Your task to perform on an android device: turn on improve location accuracy Image 0: 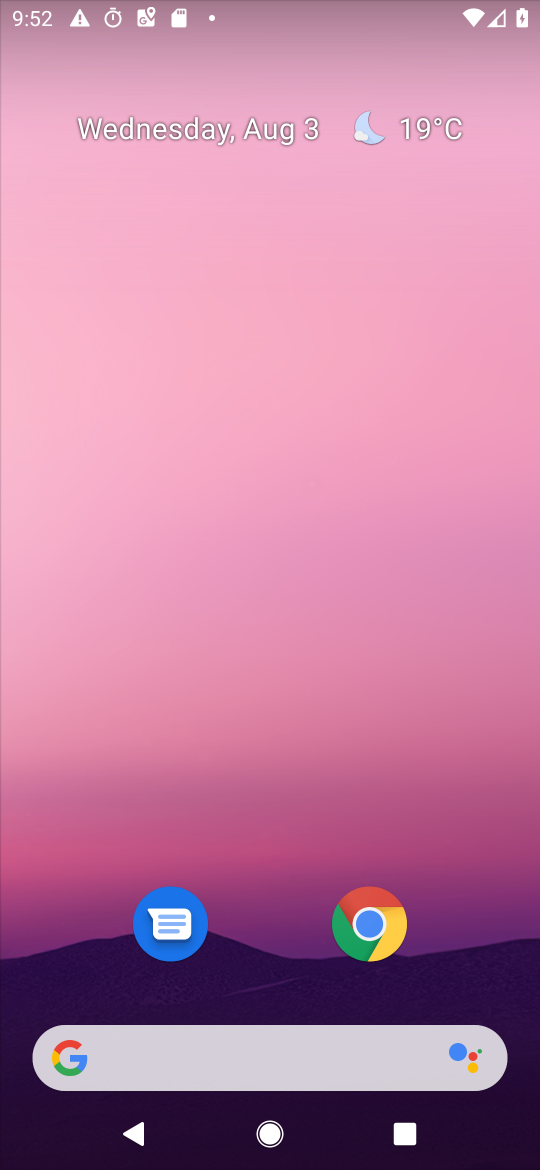
Step 0: drag from (284, 977) to (364, 82)
Your task to perform on an android device: turn on improve location accuracy Image 1: 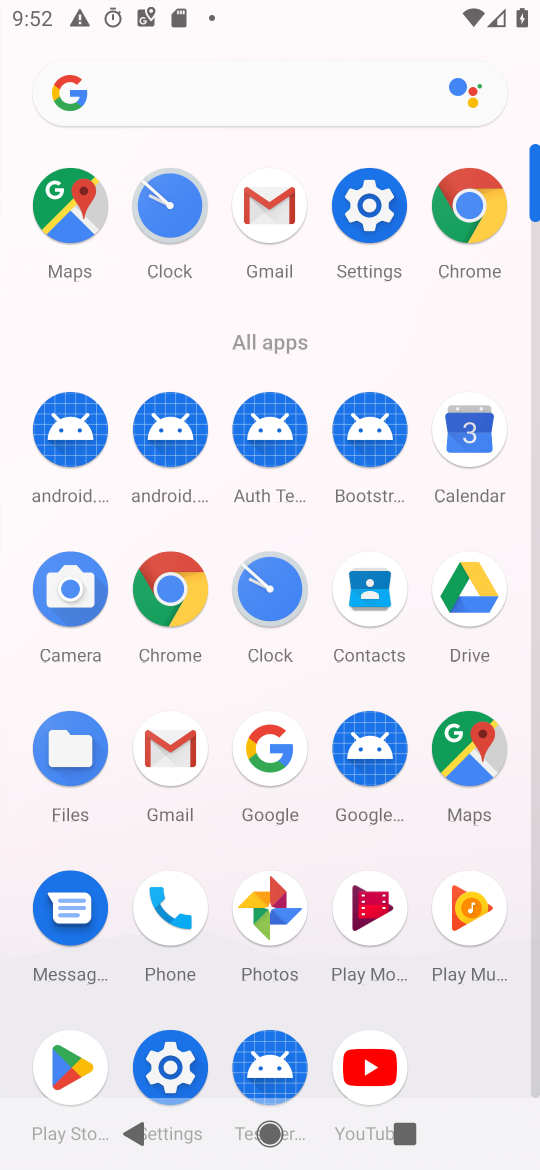
Step 1: click (363, 193)
Your task to perform on an android device: turn on improve location accuracy Image 2: 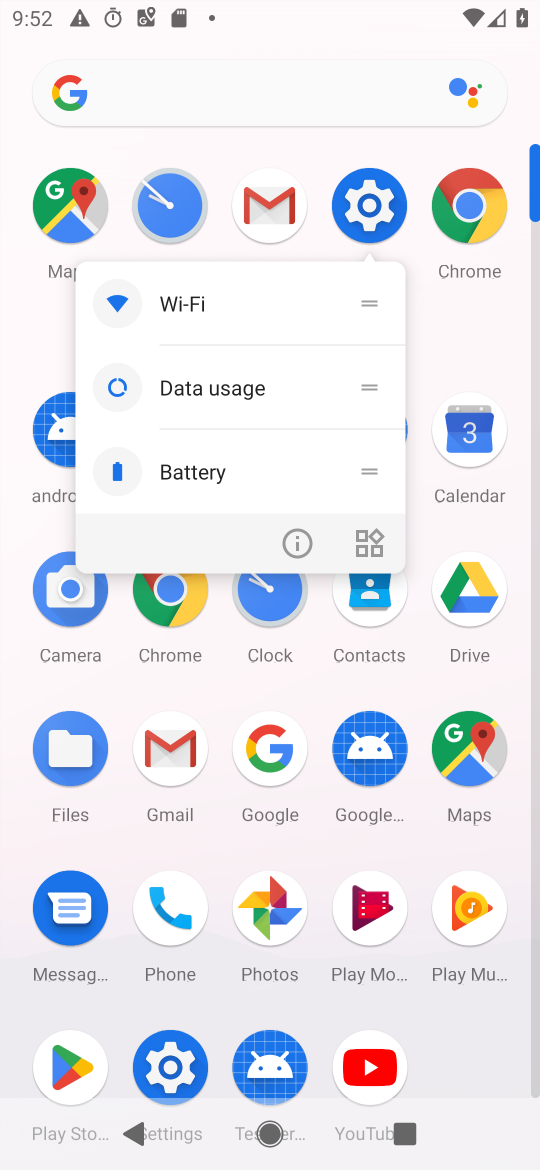
Step 2: click (365, 193)
Your task to perform on an android device: turn on improve location accuracy Image 3: 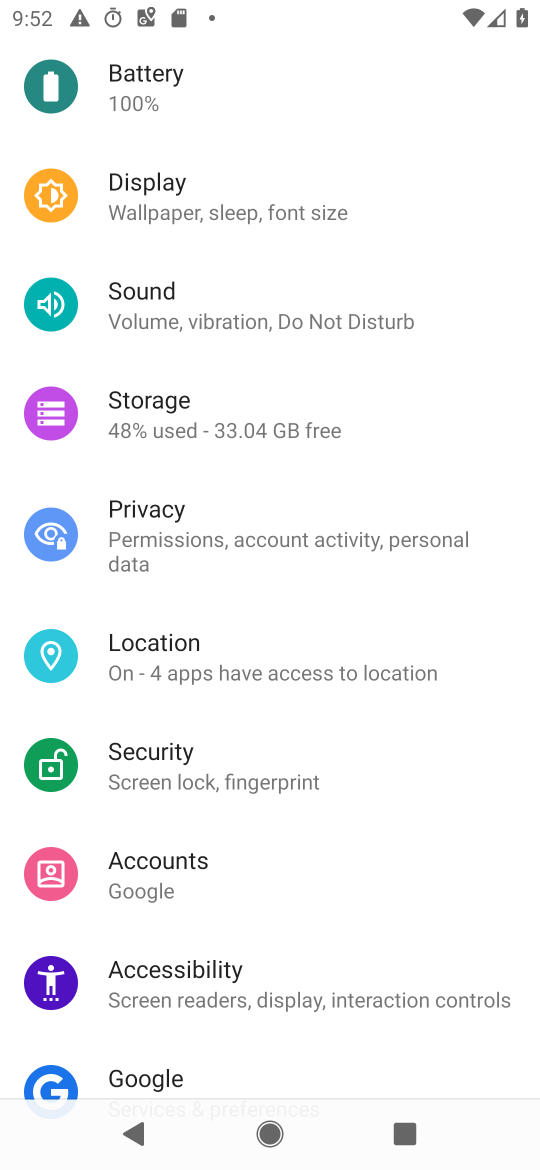
Step 3: click (218, 651)
Your task to perform on an android device: turn on improve location accuracy Image 4: 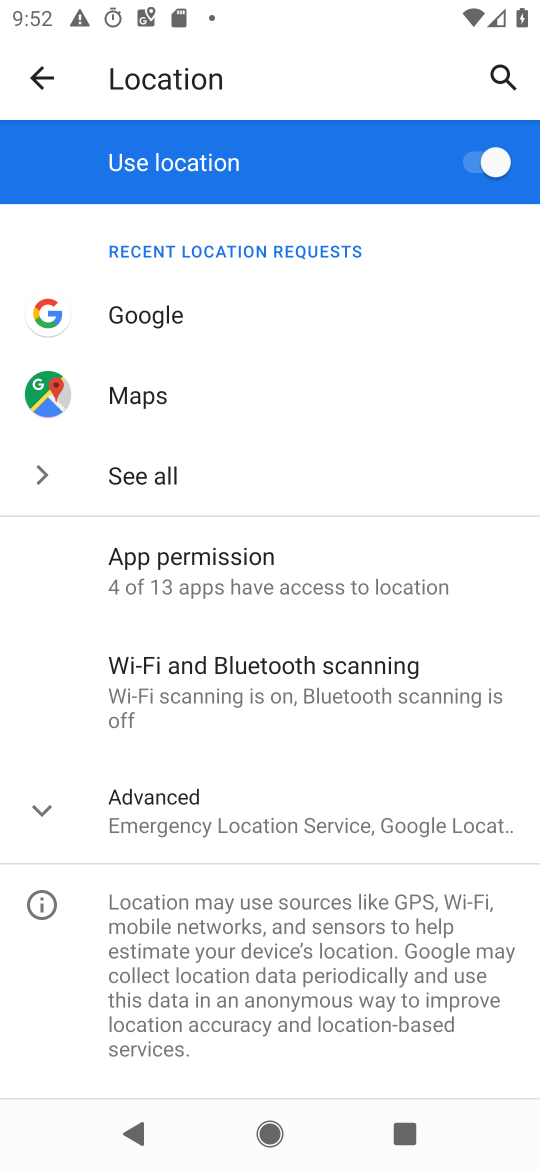
Step 4: click (150, 821)
Your task to perform on an android device: turn on improve location accuracy Image 5: 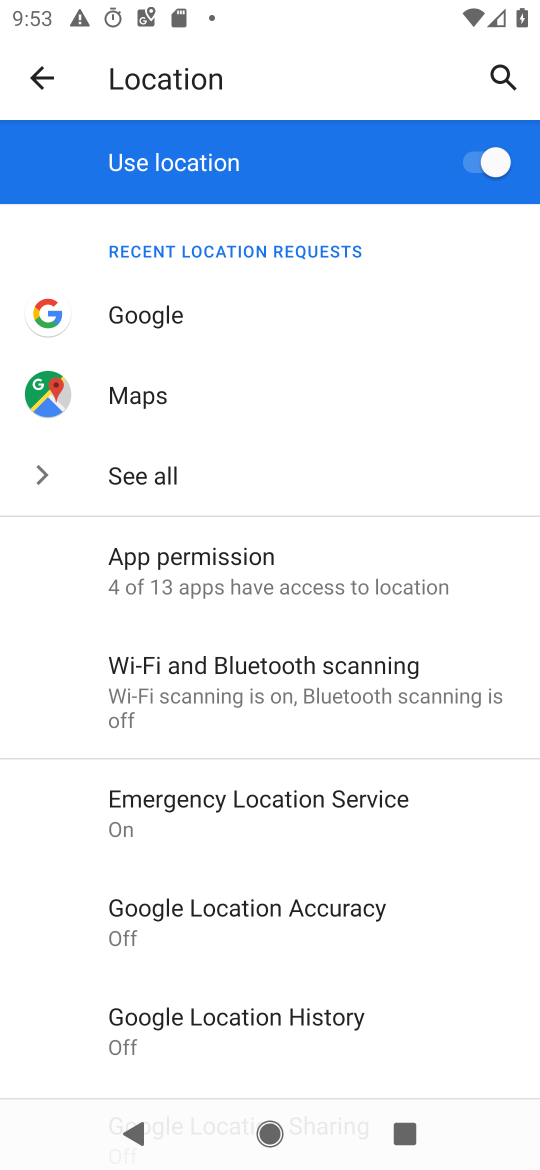
Step 5: click (291, 918)
Your task to perform on an android device: turn on improve location accuracy Image 6: 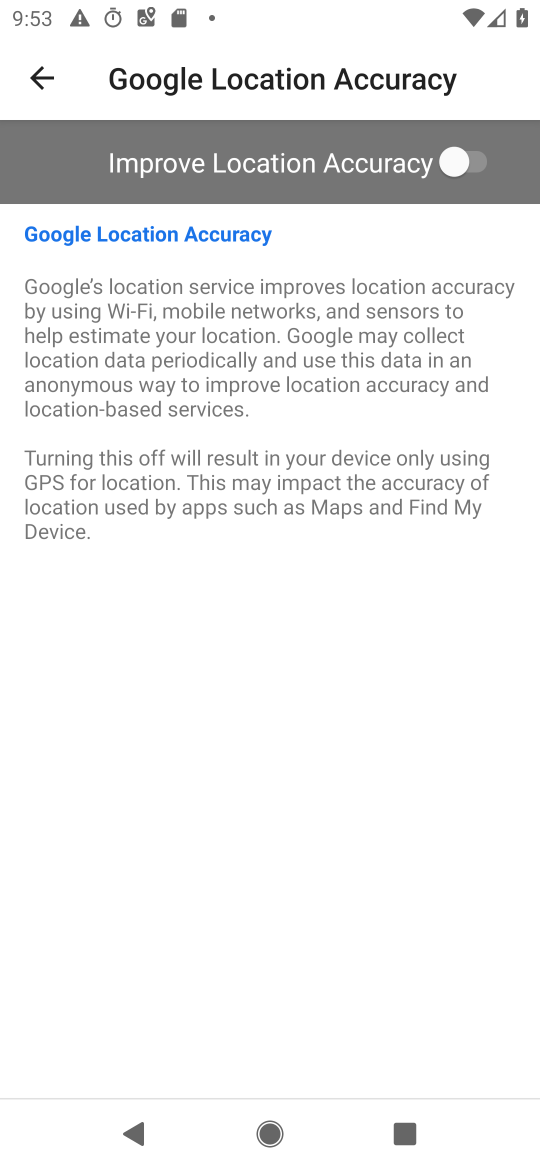
Step 6: click (457, 153)
Your task to perform on an android device: turn on improve location accuracy Image 7: 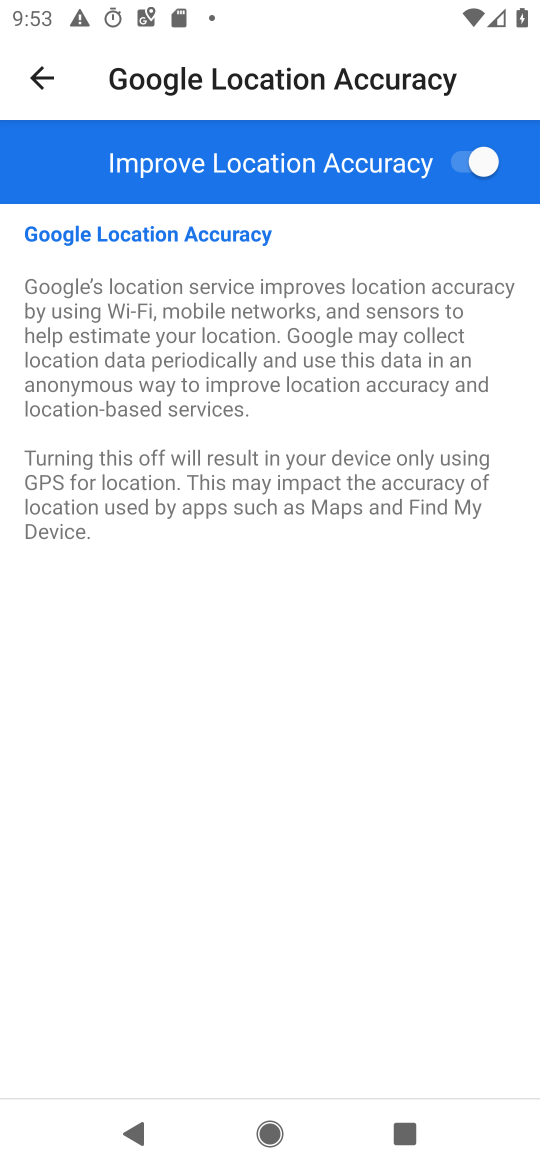
Step 7: task complete